Your task to perform on an android device: check battery use Image 0: 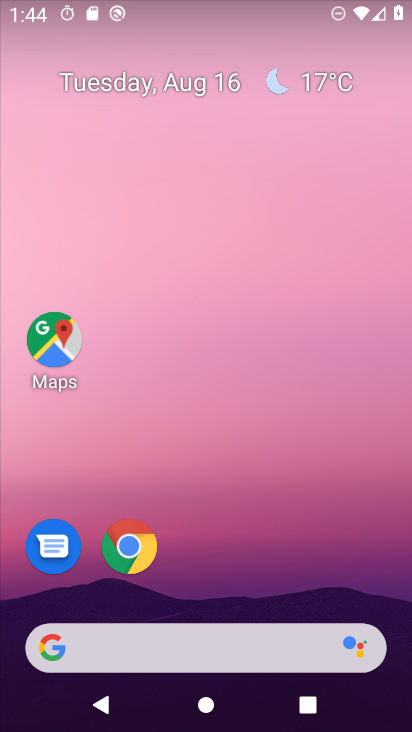
Step 0: drag from (261, 591) to (238, 93)
Your task to perform on an android device: check battery use Image 1: 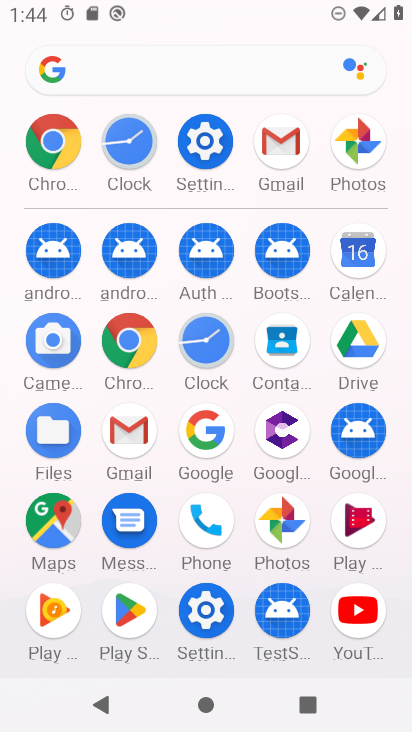
Step 1: click (216, 139)
Your task to perform on an android device: check battery use Image 2: 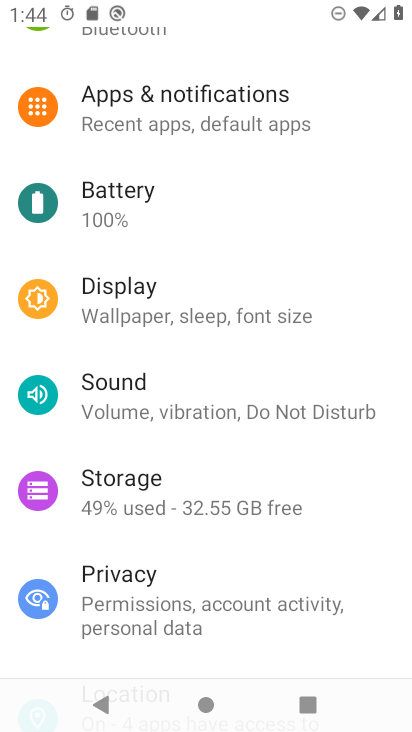
Step 2: drag from (149, 210) to (148, 590)
Your task to perform on an android device: check battery use Image 3: 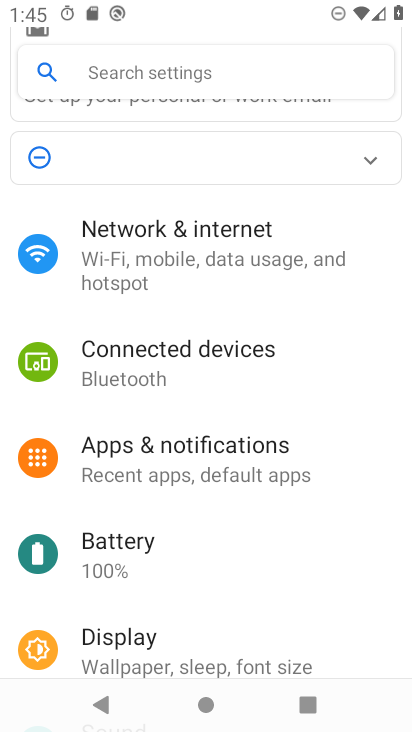
Step 3: click (111, 550)
Your task to perform on an android device: check battery use Image 4: 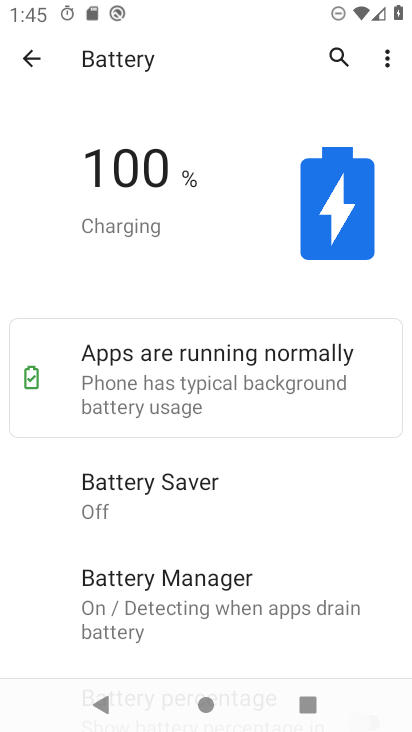
Step 4: click (389, 66)
Your task to perform on an android device: check battery use Image 5: 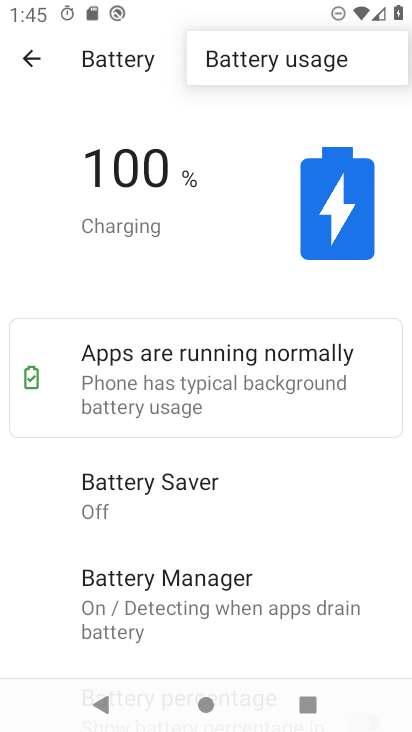
Step 5: click (285, 64)
Your task to perform on an android device: check battery use Image 6: 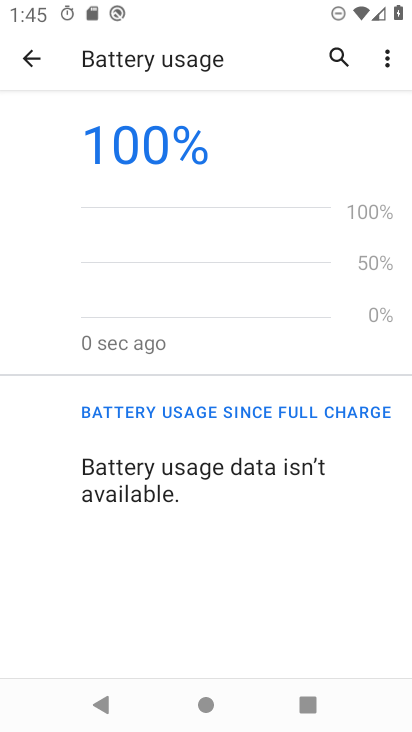
Step 6: task complete